Your task to perform on an android device: Go to network settings Image 0: 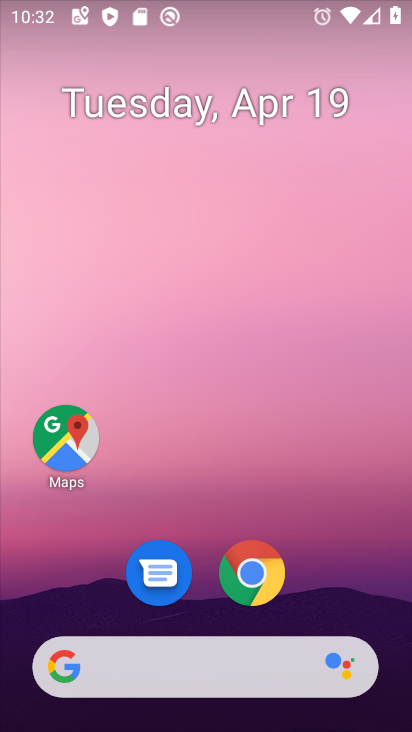
Step 0: drag from (335, 546) to (234, 113)
Your task to perform on an android device: Go to network settings Image 1: 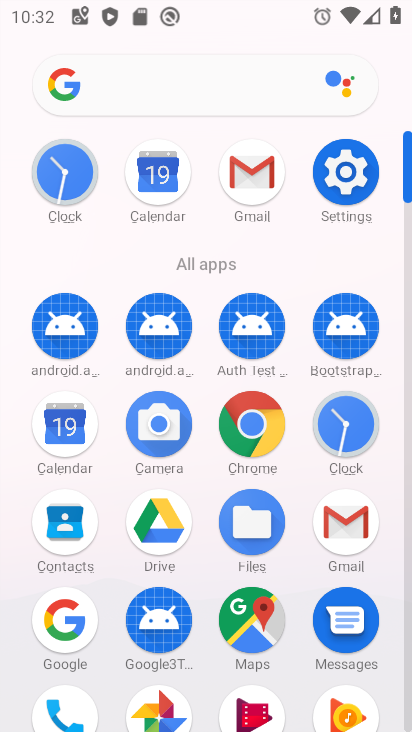
Step 1: click (341, 170)
Your task to perform on an android device: Go to network settings Image 2: 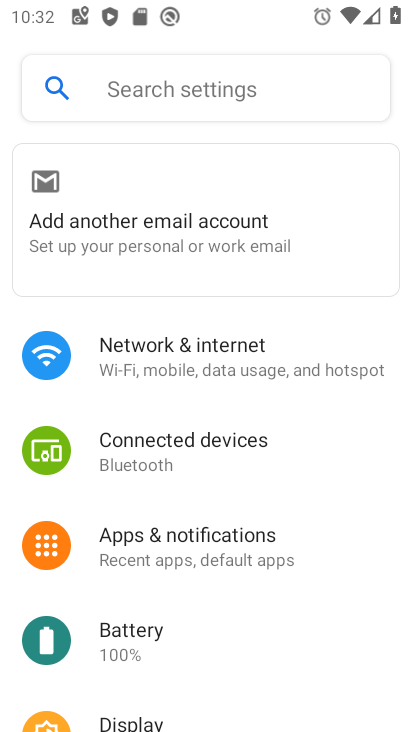
Step 2: click (178, 359)
Your task to perform on an android device: Go to network settings Image 3: 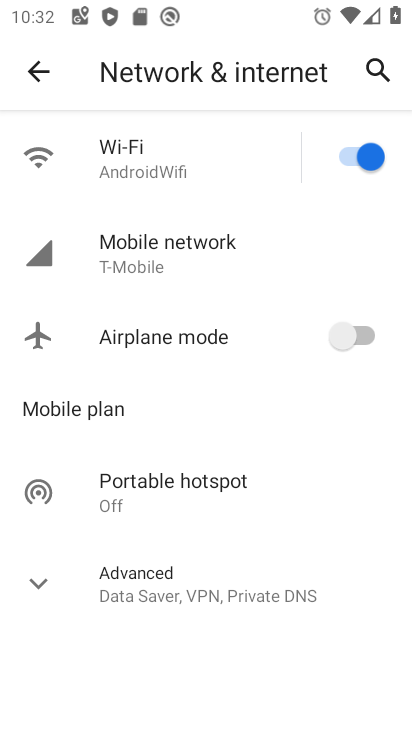
Step 3: task complete